Your task to perform on an android device: open app "Facebook Lite" (install if not already installed) and enter user name: "suppers@inbox.com" and password: "downplayed" Image 0: 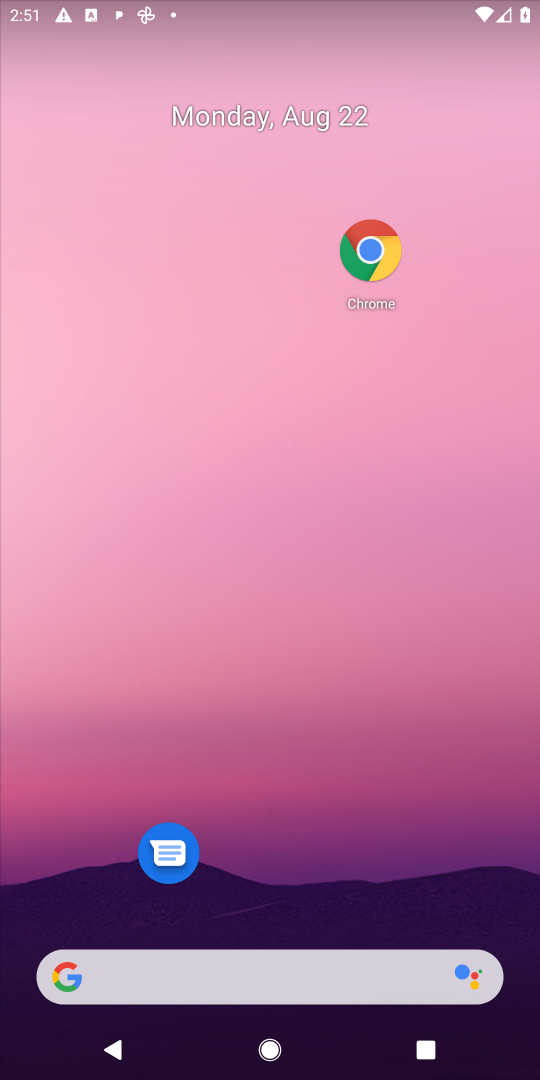
Step 0: drag from (208, 914) to (208, 240)
Your task to perform on an android device: open app "Facebook Lite" (install if not already installed) and enter user name: "suppers@inbox.com" and password: "downplayed" Image 1: 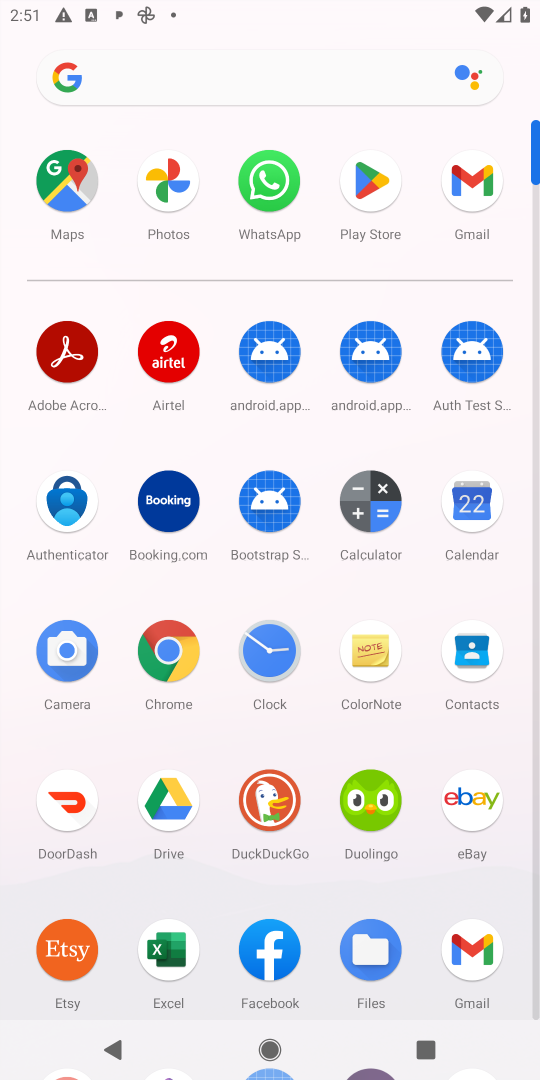
Step 1: click (367, 173)
Your task to perform on an android device: open app "Facebook Lite" (install if not already installed) and enter user name: "suppers@inbox.com" and password: "downplayed" Image 2: 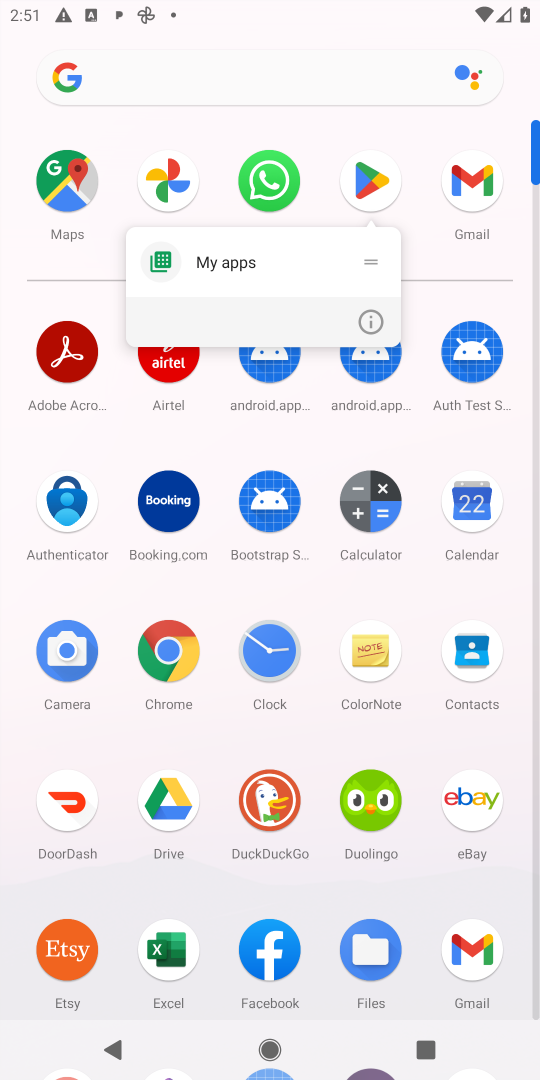
Step 2: click (385, 177)
Your task to perform on an android device: open app "Facebook Lite" (install if not already installed) and enter user name: "suppers@inbox.com" and password: "downplayed" Image 3: 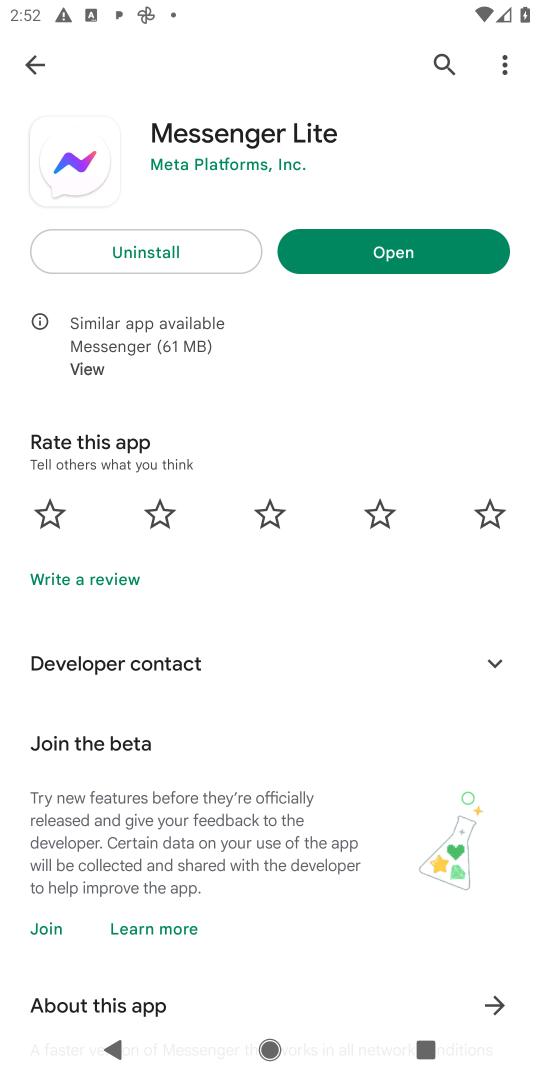
Step 3: click (18, 55)
Your task to perform on an android device: open app "Facebook Lite" (install if not already installed) and enter user name: "suppers@inbox.com" and password: "downplayed" Image 4: 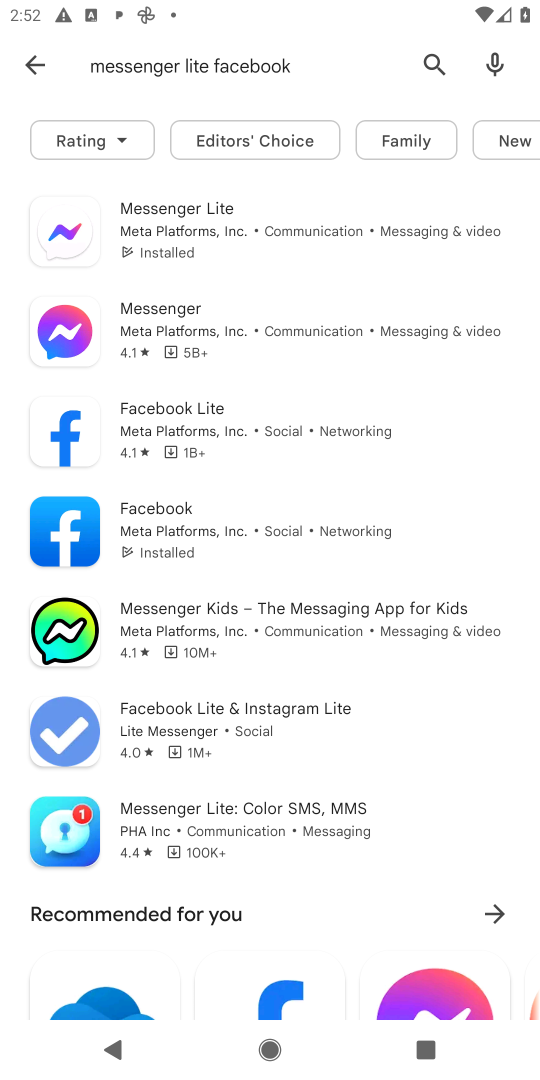
Step 4: click (44, 56)
Your task to perform on an android device: open app "Facebook Lite" (install if not already installed) and enter user name: "suppers@inbox.com" and password: "downplayed" Image 5: 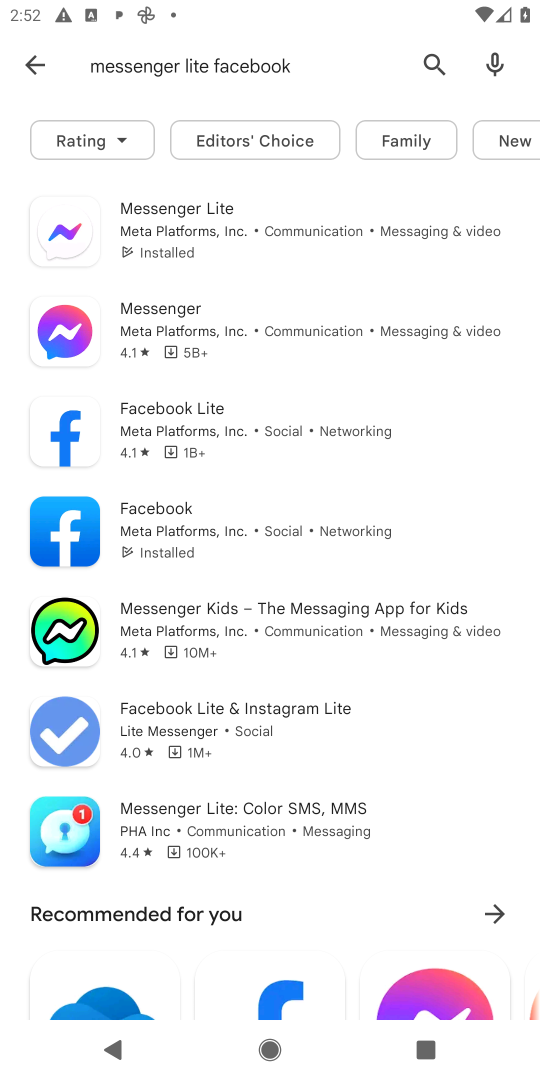
Step 5: click (220, 543)
Your task to perform on an android device: open app "Facebook Lite" (install if not already installed) and enter user name: "suppers@inbox.com" and password: "downplayed" Image 6: 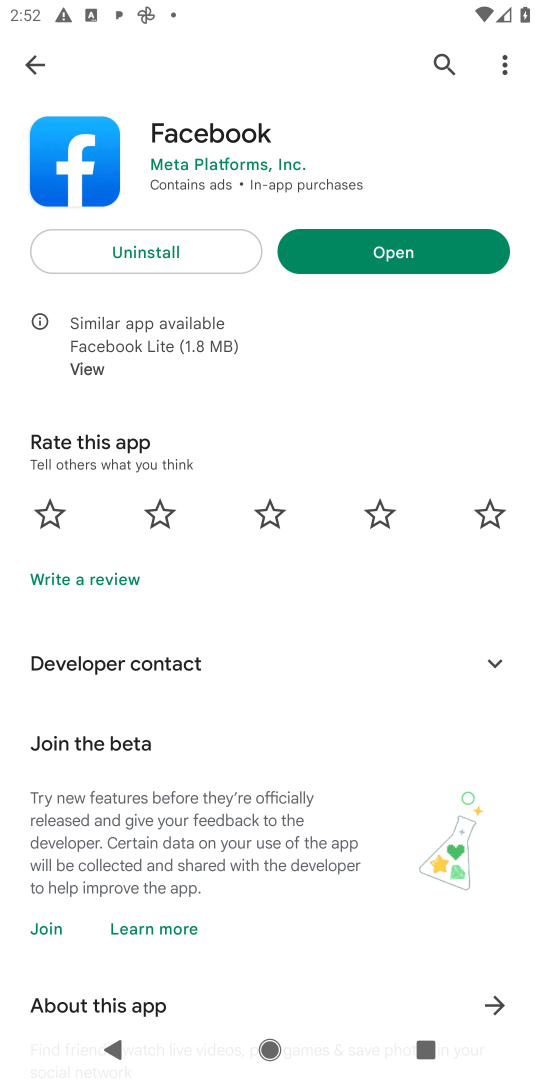
Step 6: click (5, 34)
Your task to perform on an android device: open app "Facebook Lite" (install if not already installed) and enter user name: "suppers@inbox.com" and password: "downplayed" Image 7: 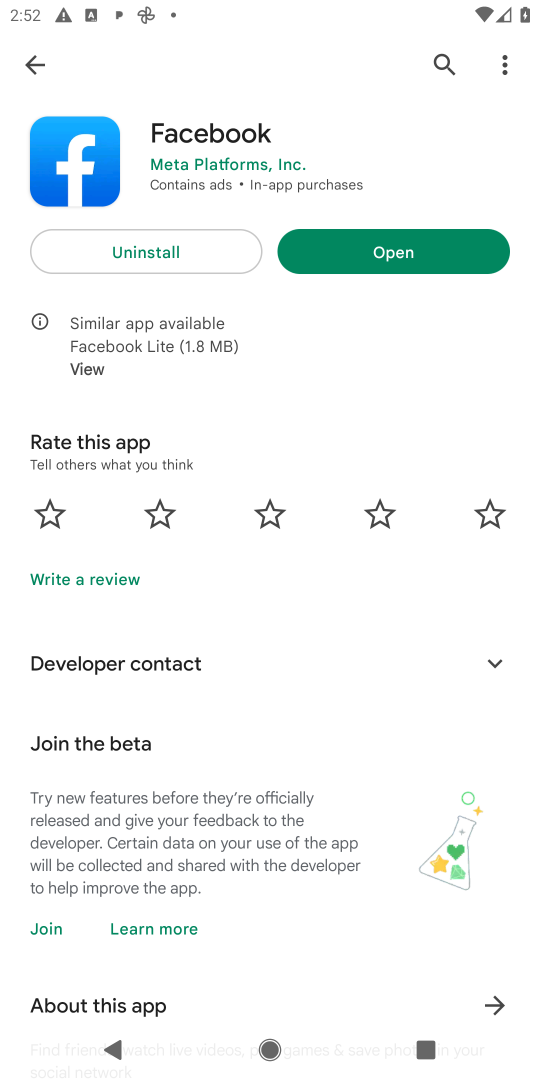
Step 7: click (51, 63)
Your task to perform on an android device: open app "Facebook Lite" (install if not already installed) and enter user name: "suppers@inbox.com" and password: "downplayed" Image 8: 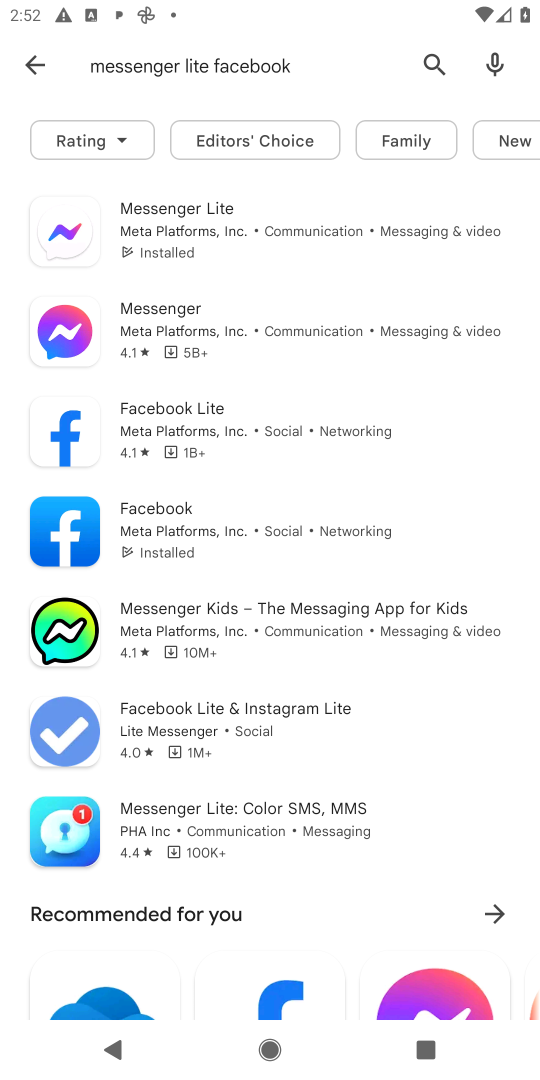
Step 8: click (178, 443)
Your task to perform on an android device: open app "Facebook Lite" (install if not already installed) and enter user name: "suppers@inbox.com" and password: "downplayed" Image 9: 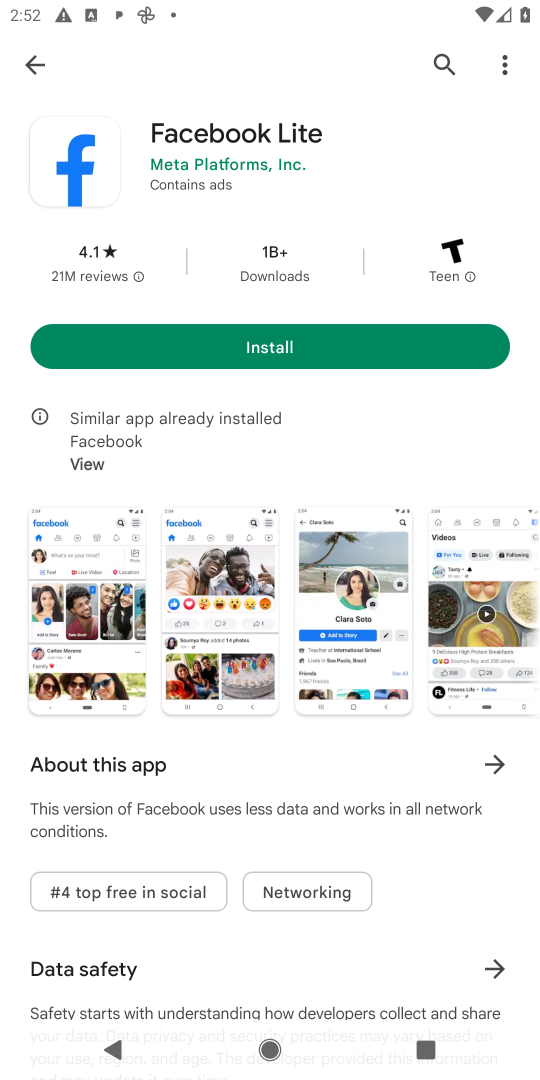
Step 9: click (322, 331)
Your task to perform on an android device: open app "Facebook Lite" (install if not already installed) and enter user name: "suppers@inbox.com" and password: "downplayed" Image 10: 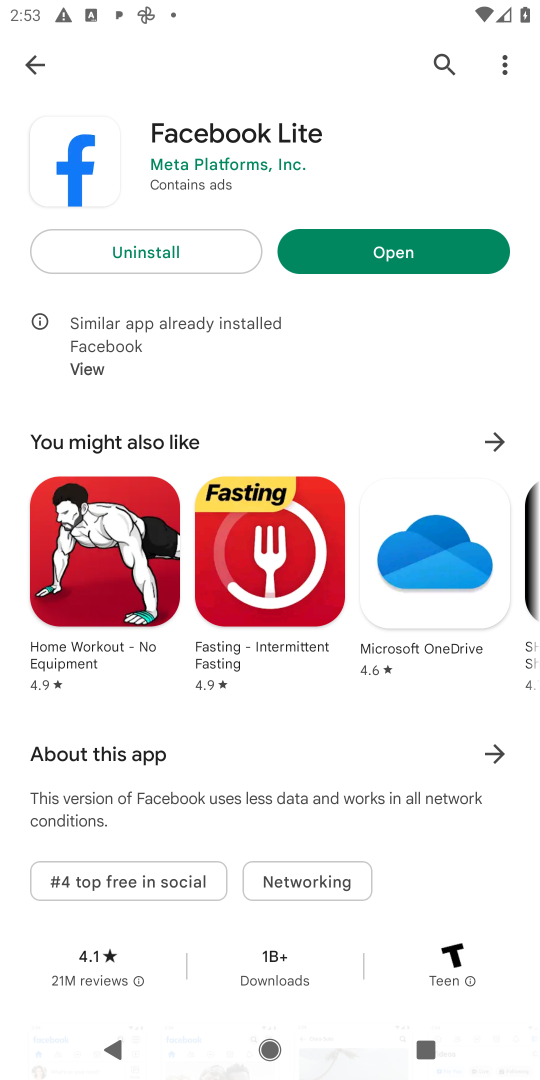
Step 10: click (372, 221)
Your task to perform on an android device: open app "Facebook Lite" (install if not already installed) and enter user name: "suppers@inbox.com" and password: "downplayed" Image 11: 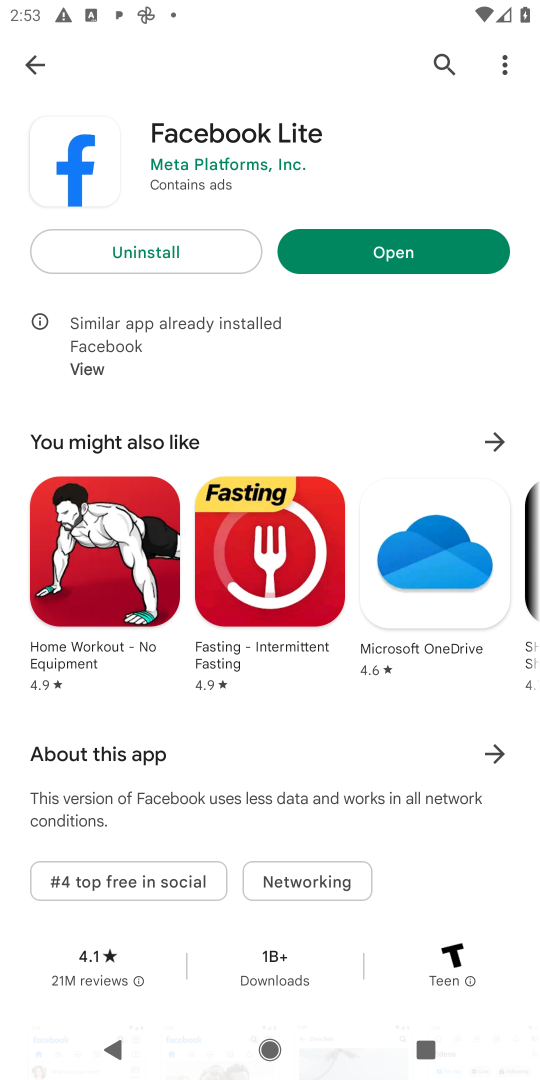
Step 11: click (366, 264)
Your task to perform on an android device: open app "Facebook Lite" (install if not already installed) and enter user name: "suppers@inbox.com" and password: "downplayed" Image 12: 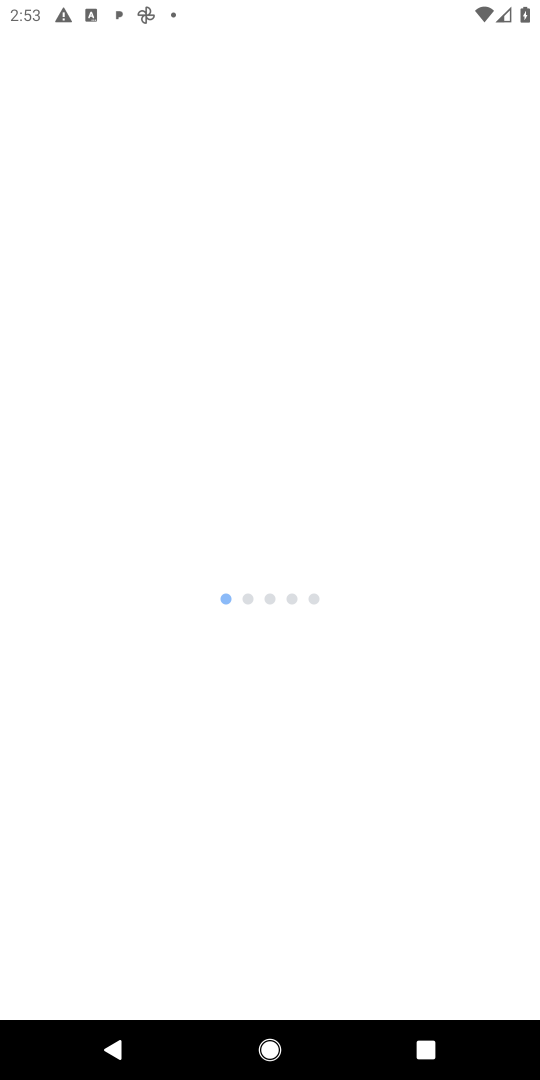
Step 12: task complete